Your task to perform on an android device: Open eBay Image 0: 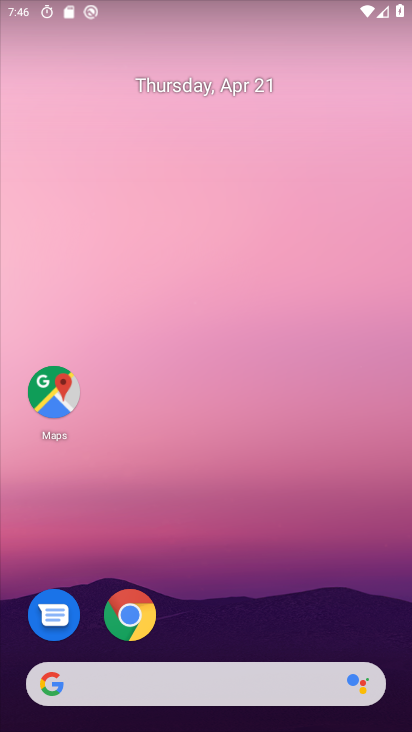
Step 0: drag from (203, 696) to (347, 278)
Your task to perform on an android device: Open eBay Image 1: 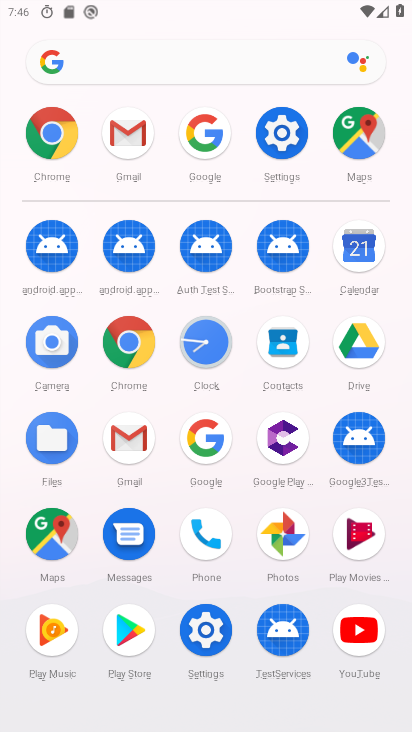
Step 1: click (56, 145)
Your task to perform on an android device: Open eBay Image 2: 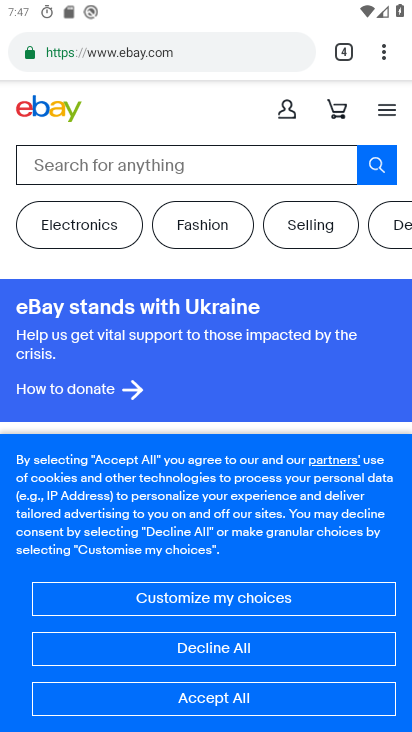
Step 2: task complete